Your task to perform on an android device: Go to Reddit.com Image 0: 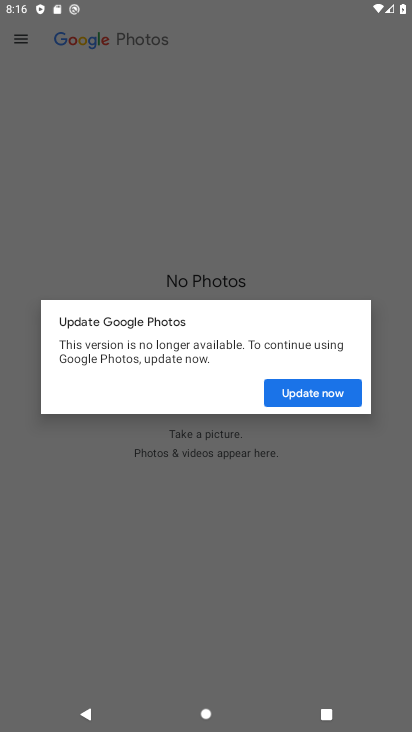
Step 0: press home button
Your task to perform on an android device: Go to Reddit.com Image 1: 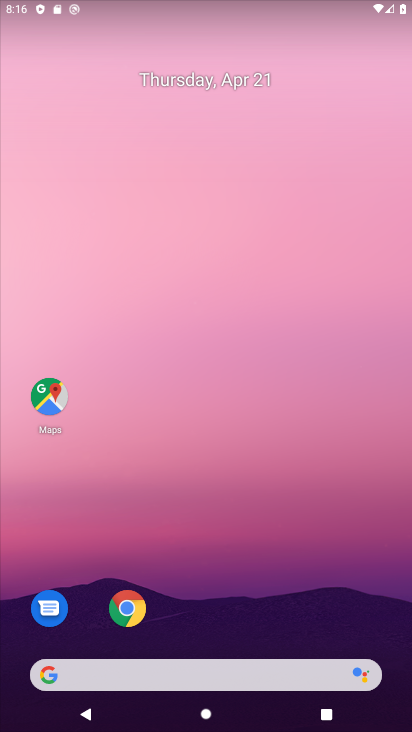
Step 1: click (199, 677)
Your task to perform on an android device: Go to Reddit.com Image 2: 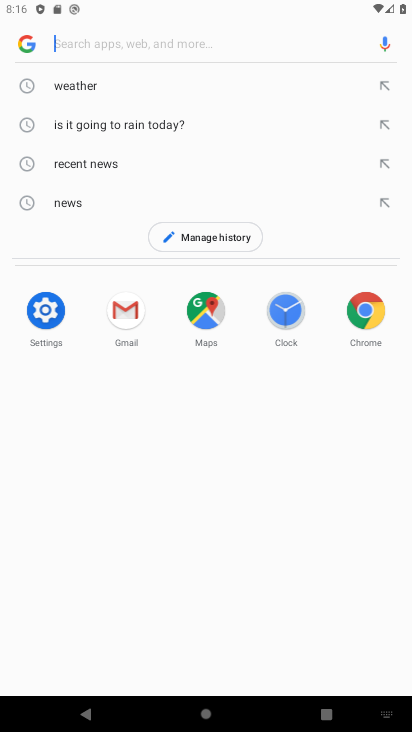
Step 2: type "reddit.com"
Your task to perform on an android device: Go to Reddit.com Image 3: 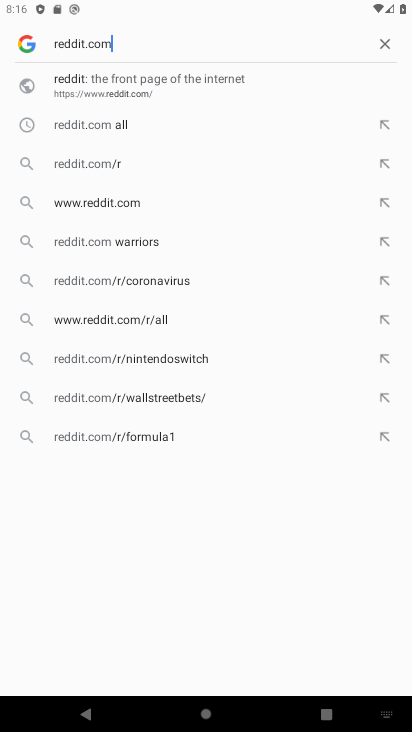
Step 3: click (159, 89)
Your task to perform on an android device: Go to Reddit.com Image 4: 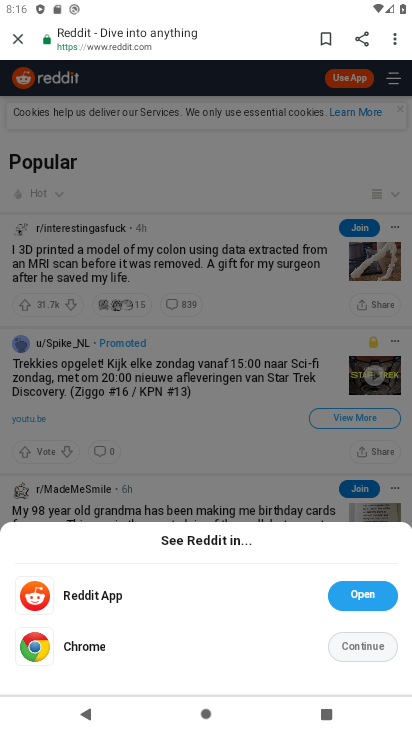
Step 4: task complete